Your task to perform on an android device: see creations saved in the google photos Image 0: 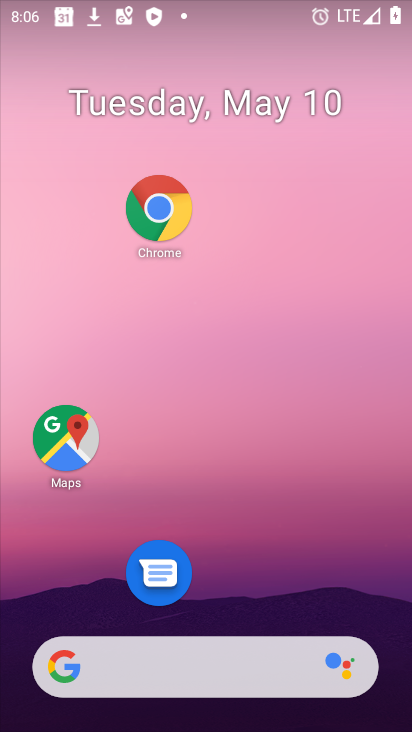
Step 0: drag from (235, 706) to (331, 299)
Your task to perform on an android device: see creations saved in the google photos Image 1: 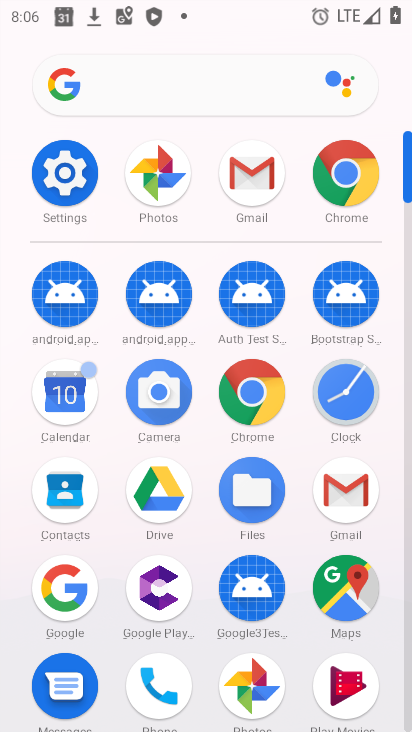
Step 1: click (244, 672)
Your task to perform on an android device: see creations saved in the google photos Image 2: 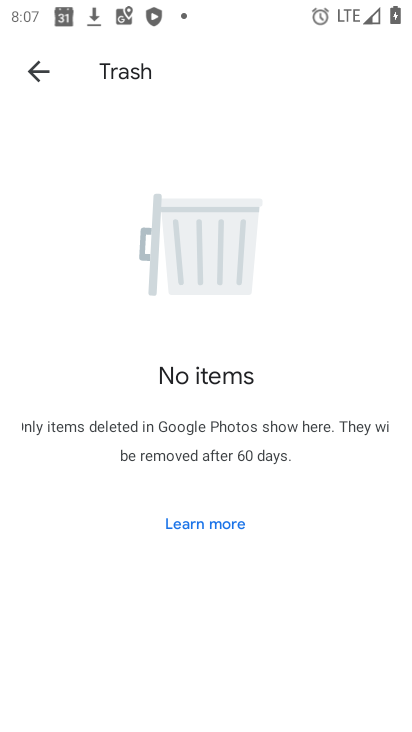
Step 2: click (40, 90)
Your task to perform on an android device: see creations saved in the google photos Image 3: 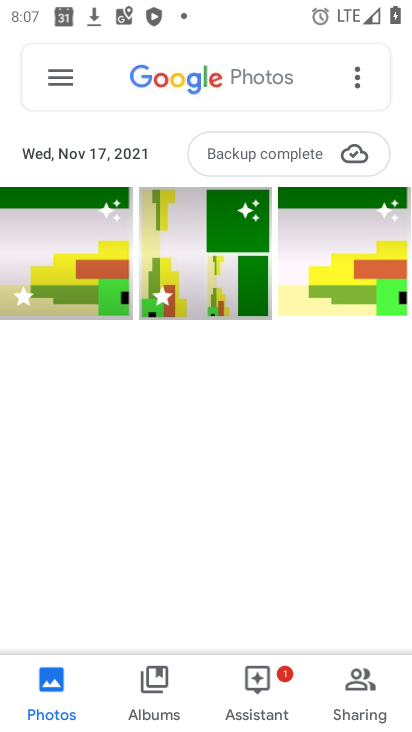
Step 3: click (332, 247)
Your task to perform on an android device: see creations saved in the google photos Image 4: 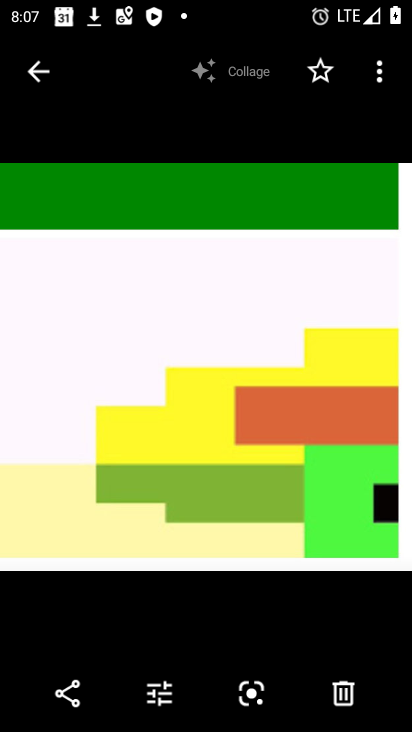
Step 4: click (375, 79)
Your task to perform on an android device: see creations saved in the google photos Image 5: 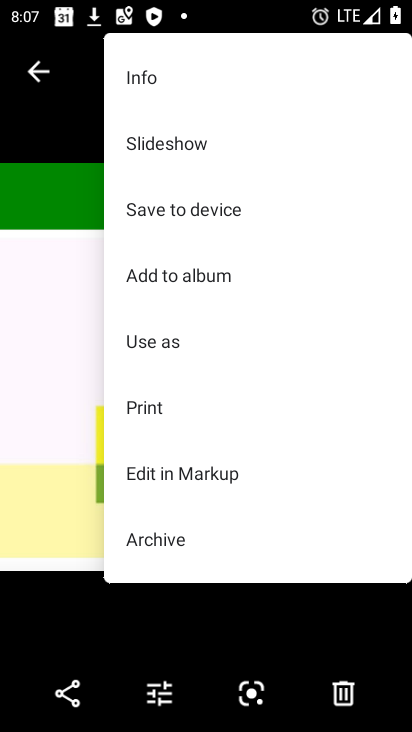
Step 5: click (228, 207)
Your task to perform on an android device: see creations saved in the google photos Image 6: 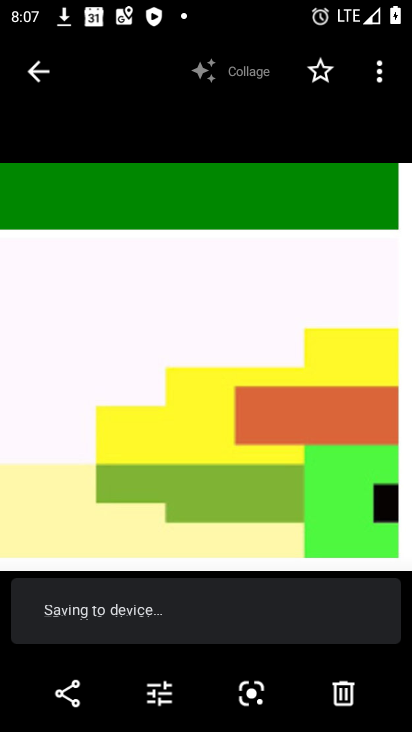
Step 6: task complete